Your task to perform on an android device: What is the news today? Image 0: 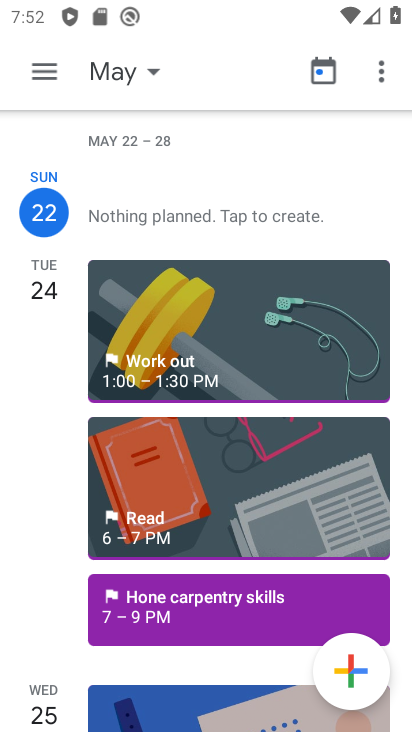
Step 0: press home button
Your task to perform on an android device: What is the news today? Image 1: 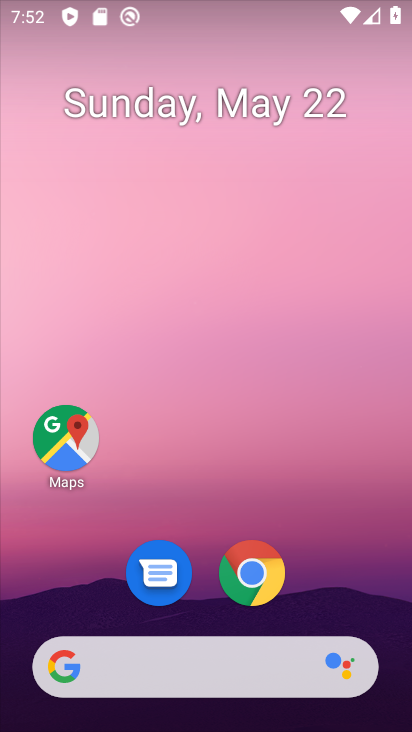
Step 1: drag from (346, 604) to (341, 193)
Your task to perform on an android device: What is the news today? Image 2: 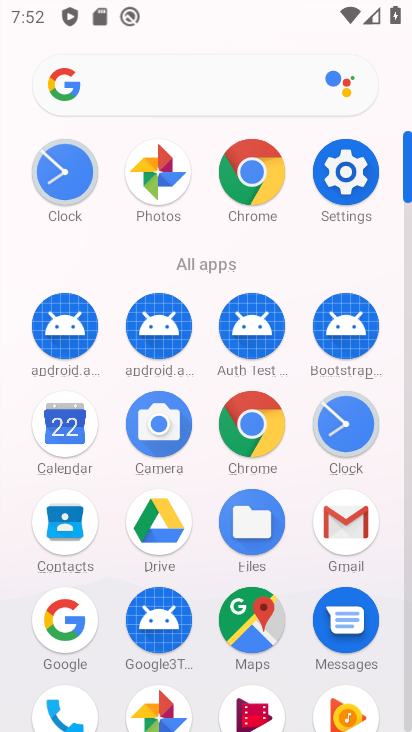
Step 2: click (254, 182)
Your task to perform on an android device: What is the news today? Image 3: 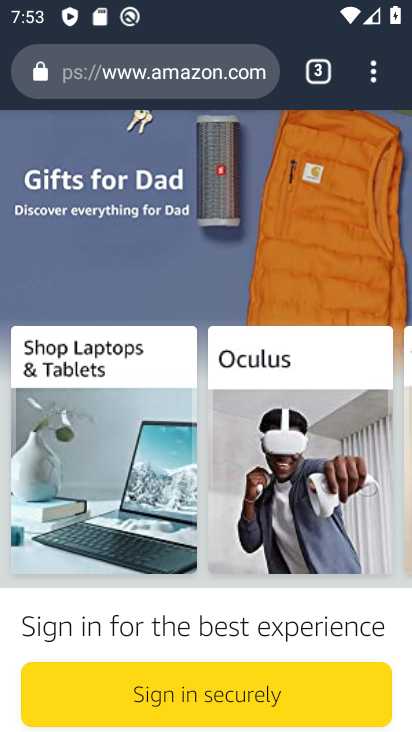
Step 3: click (191, 77)
Your task to perform on an android device: What is the news today? Image 4: 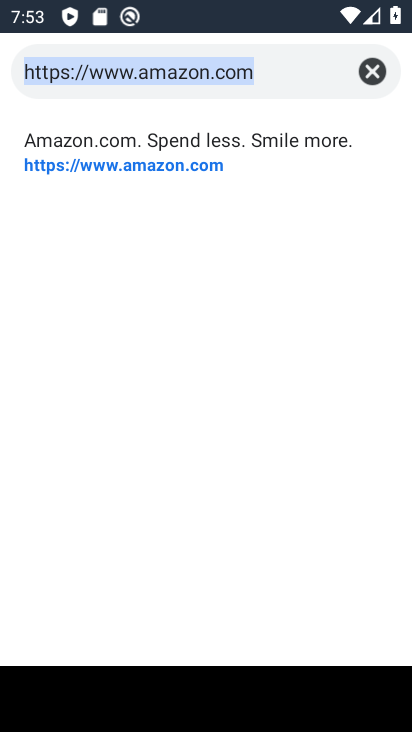
Step 4: click (374, 75)
Your task to perform on an android device: What is the news today? Image 5: 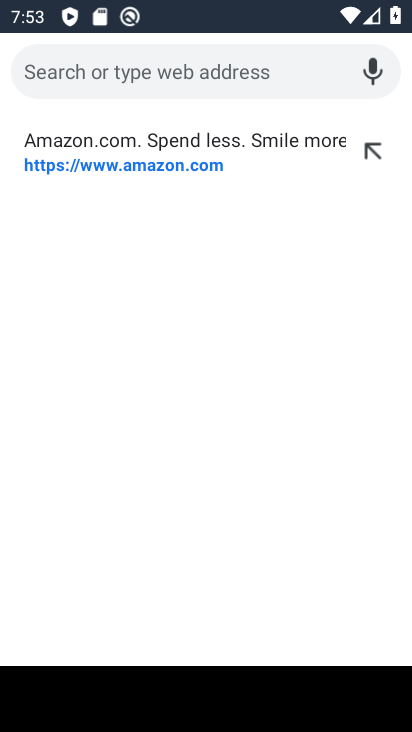
Step 5: type "what is  the news today"
Your task to perform on an android device: What is the news today? Image 6: 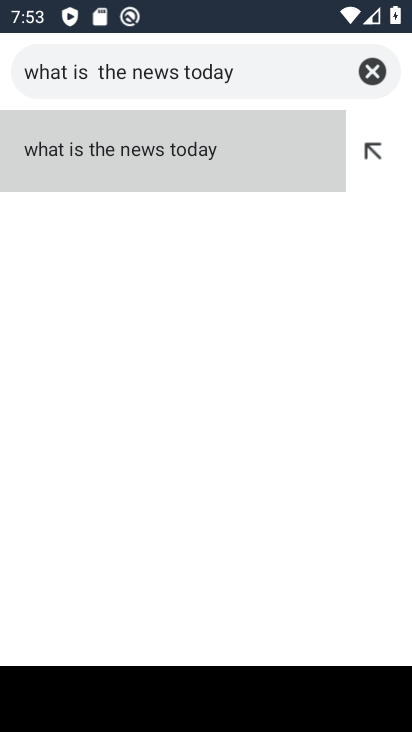
Step 6: click (88, 149)
Your task to perform on an android device: What is the news today? Image 7: 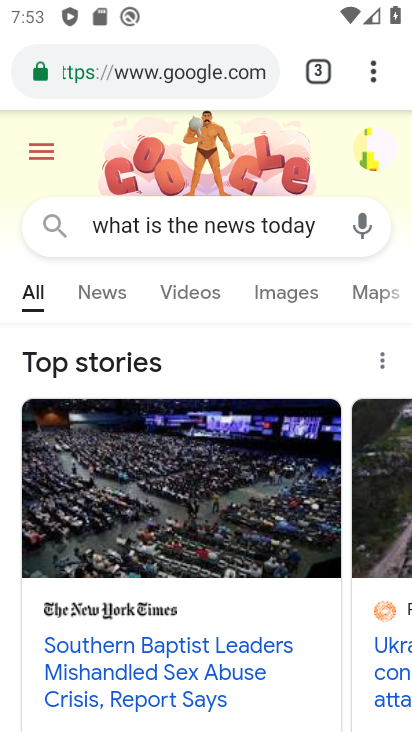
Step 7: task complete